Your task to perform on an android device: Show me recent news Image 0: 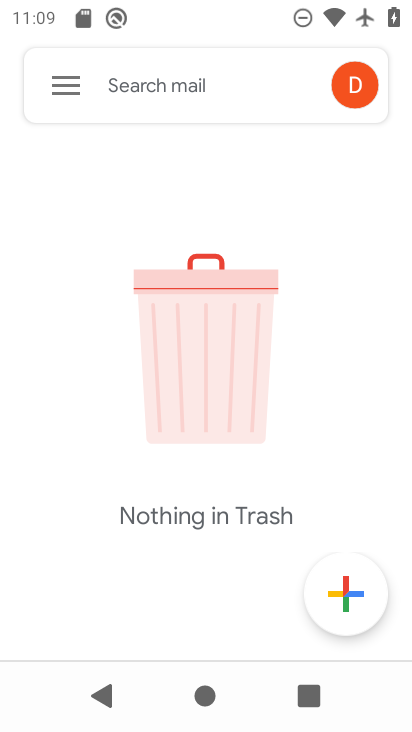
Step 0: press back button
Your task to perform on an android device: Show me recent news Image 1: 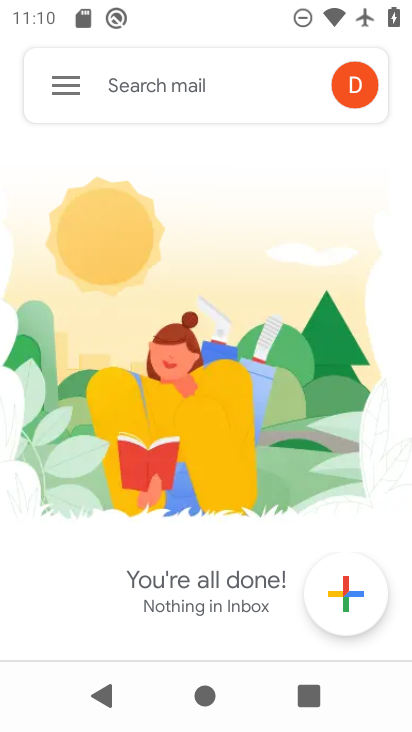
Step 1: press back button
Your task to perform on an android device: Show me recent news Image 2: 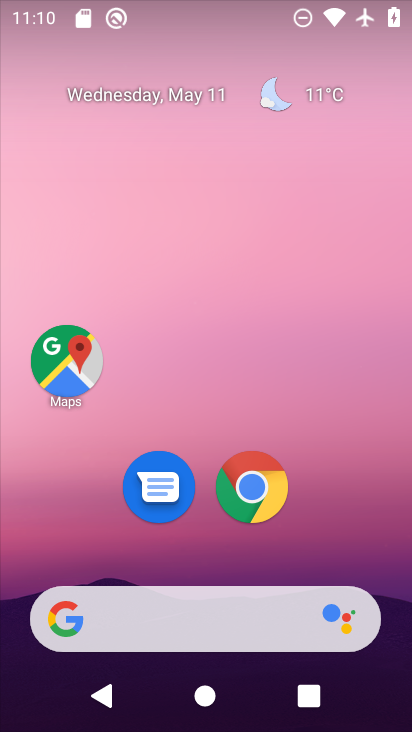
Step 2: drag from (340, 519) to (272, 55)
Your task to perform on an android device: Show me recent news Image 3: 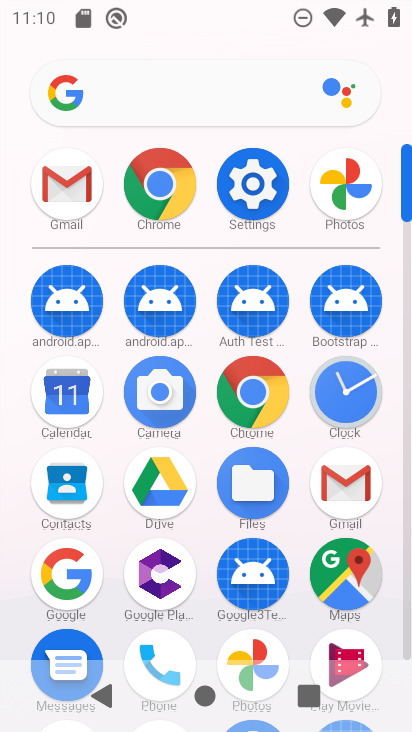
Step 3: drag from (12, 539) to (10, 290)
Your task to perform on an android device: Show me recent news Image 4: 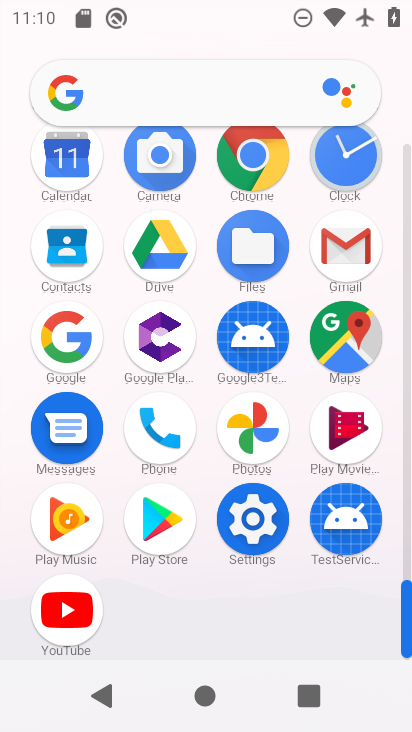
Step 4: click (251, 153)
Your task to perform on an android device: Show me recent news Image 5: 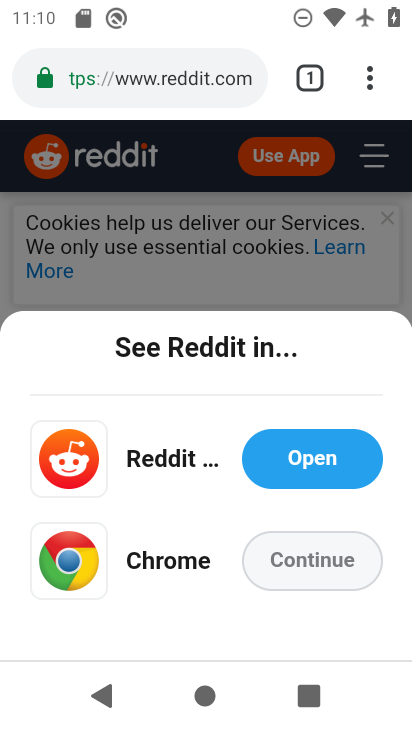
Step 5: click (167, 74)
Your task to perform on an android device: Show me recent news Image 6: 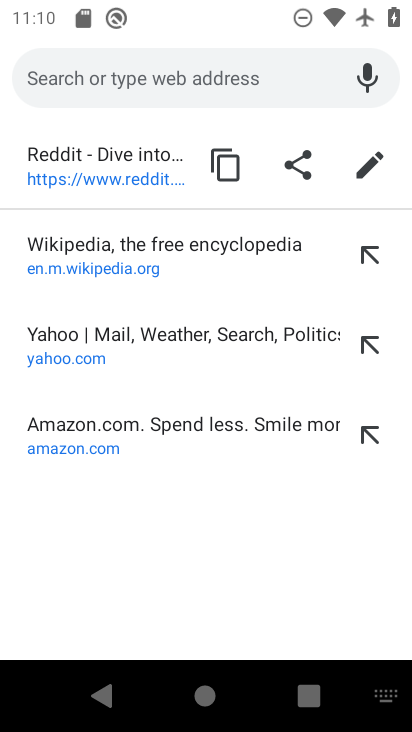
Step 6: type "Show me recent news"
Your task to perform on an android device: Show me recent news Image 7: 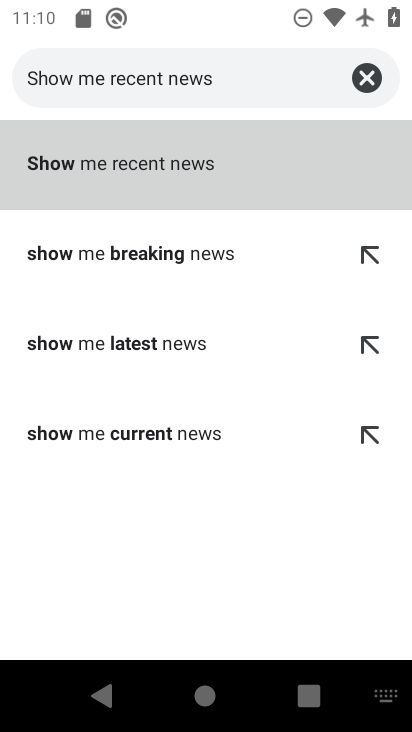
Step 7: click (190, 177)
Your task to perform on an android device: Show me recent news Image 8: 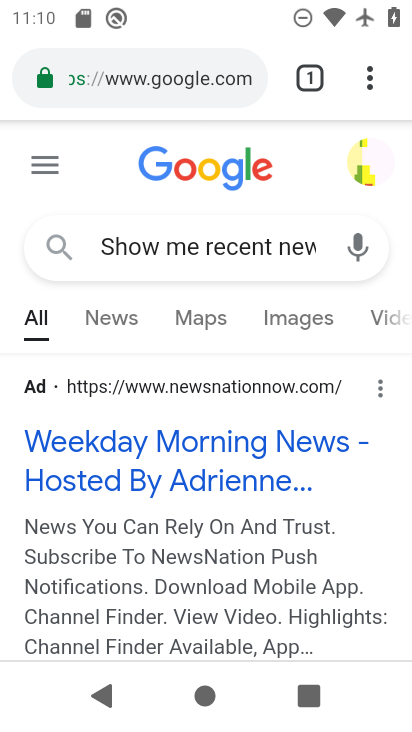
Step 8: click (114, 319)
Your task to perform on an android device: Show me recent news Image 9: 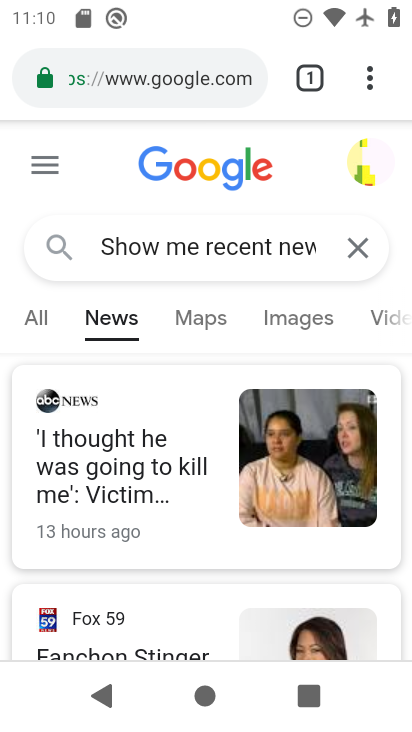
Step 9: task complete